Your task to perform on an android device: Show me the alarms in the clock app Image 0: 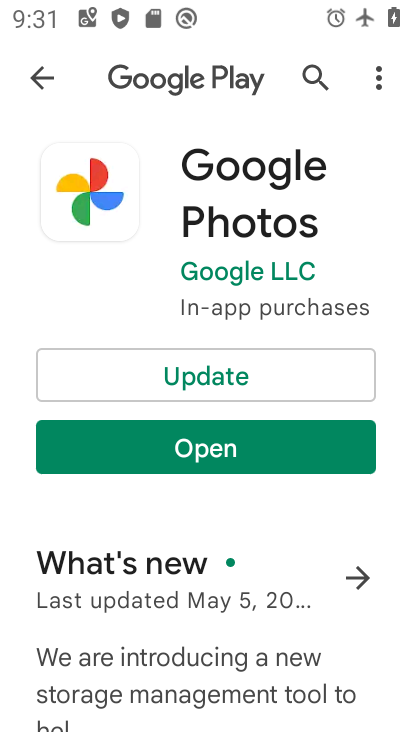
Step 0: press home button
Your task to perform on an android device: Show me the alarms in the clock app Image 1: 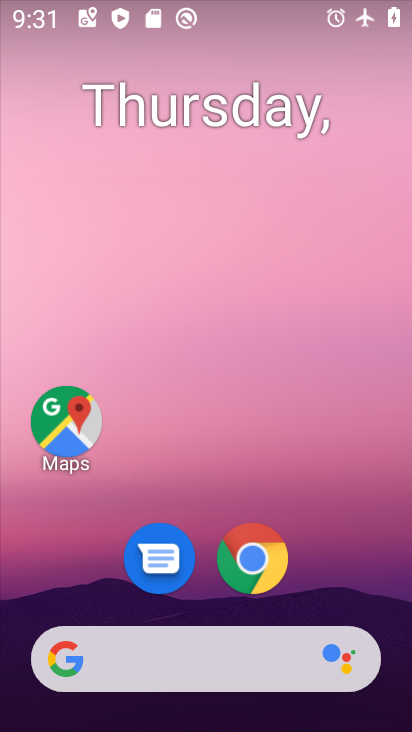
Step 1: drag from (387, 612) to (263, 80)
Your task to perform on an android device: Show me the alarms in the clock app Image 2: 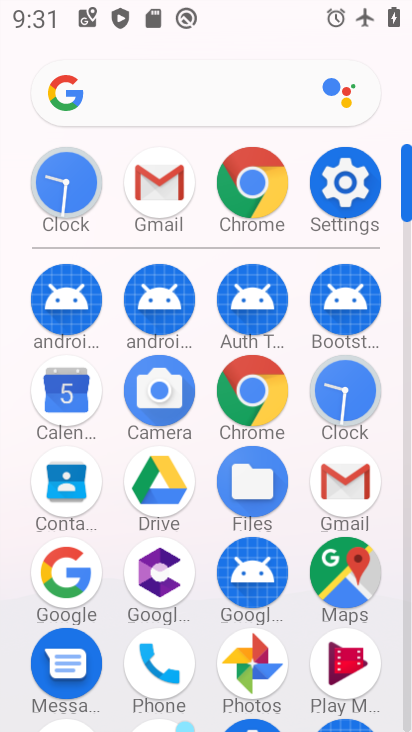
Step 2: click (343, 395)
Your task to perform on an android device: Show me the alarms in the clock app Image 3: 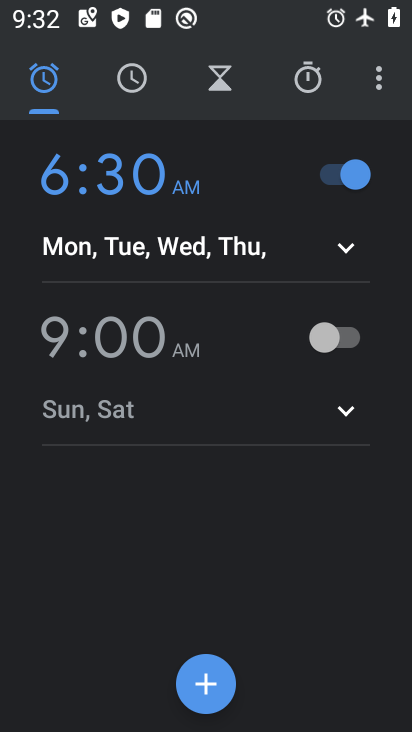
Step 3: task complete